Your task to perform on an android device: Set the phone to "Do not disturb". Image 0: 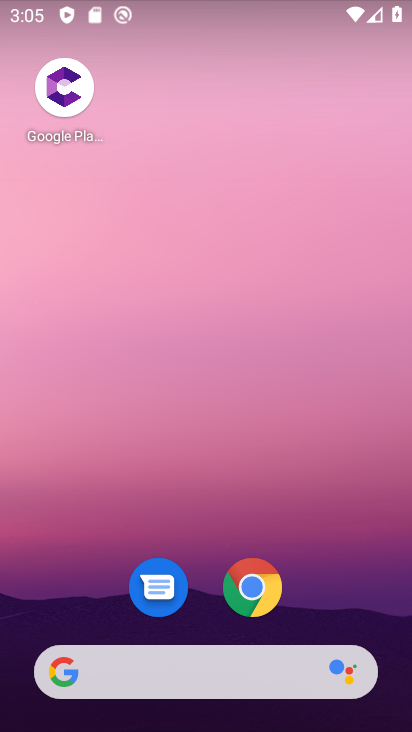
Step 0: drag from (215, 572) to (252, 19)
Your task to perform on an android device: Set the phone to "Do not disturb". Image 1: 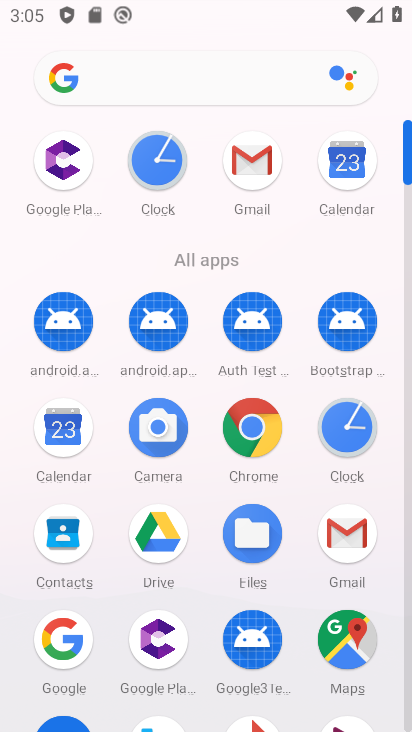
Step 1: drag from (207, 581) to (237, 110)
Your task to perform on an android device: Set the phone to "Do not disturb". Image 2: 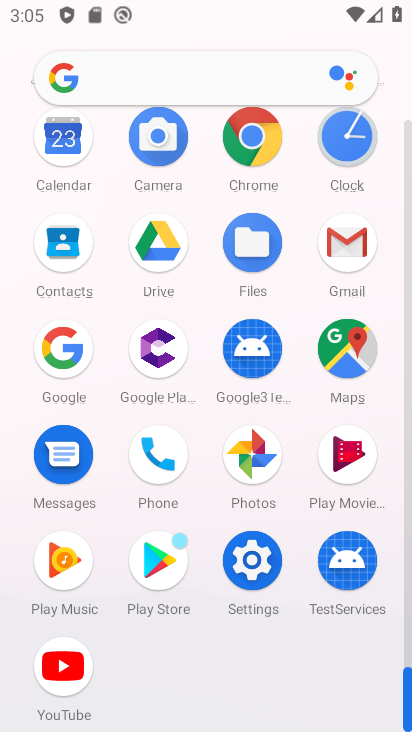
Step 2: click (250, 586)
Your task to perform on an android device: Set the phone to "Do not disturb". Image 3: 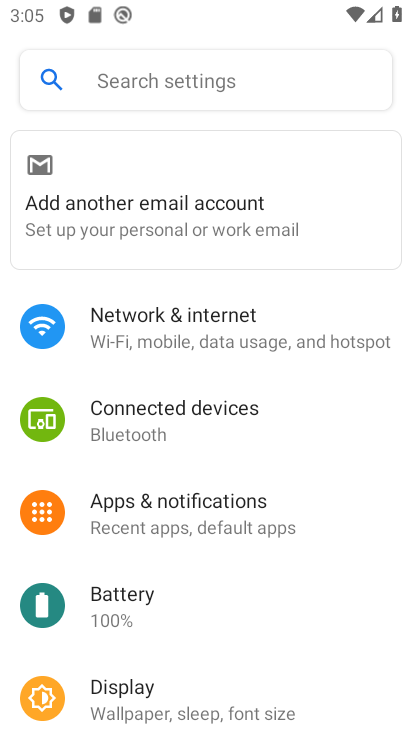
Step 3: drag from (174, 650) to (242, 272)
Your task to perform on an android device: Set the phone to "Do not disturb". Image 4: 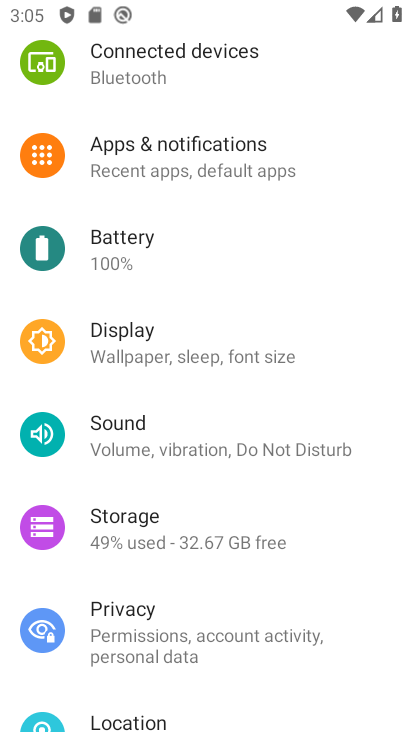
Step 4: click (181, 451)
Your task to perform on an android device: Set the phone to "Do not disturb". Image 5: 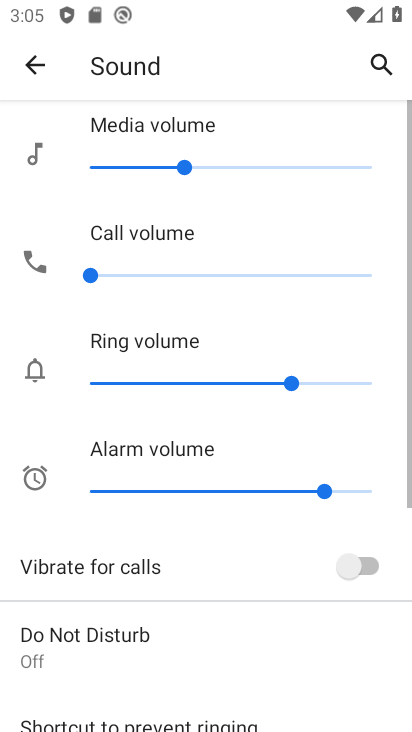
Step 5: drag from (174, 605) to (229, 244)
Your task to perform on an android device: Set the phone to "Do not disturb". Image 6: 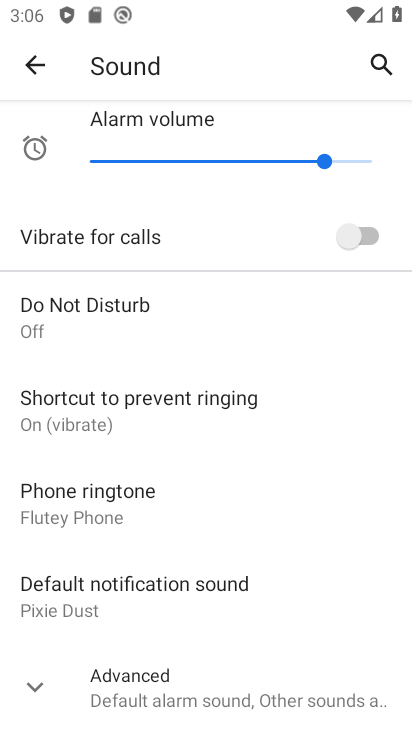
Step 6: click (100, 326)
Your task to perform on an android device: Set the phone to "Do not disturb". Image 7: 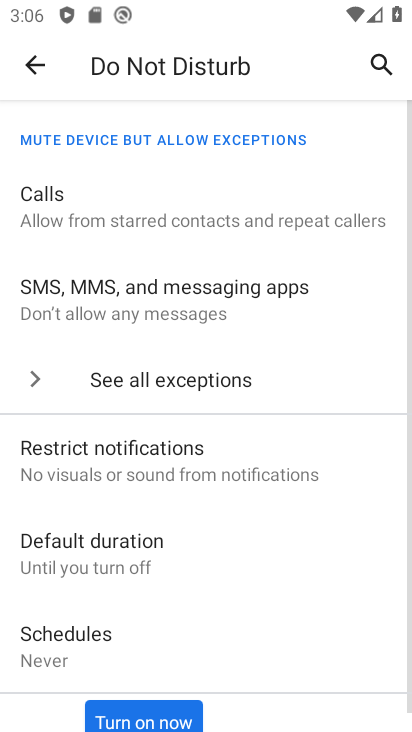
Step 7: drag from (214, 605) to (275, 261)
Your task to perform on an android device: Set the phone to "Do not disturb". Image 8: 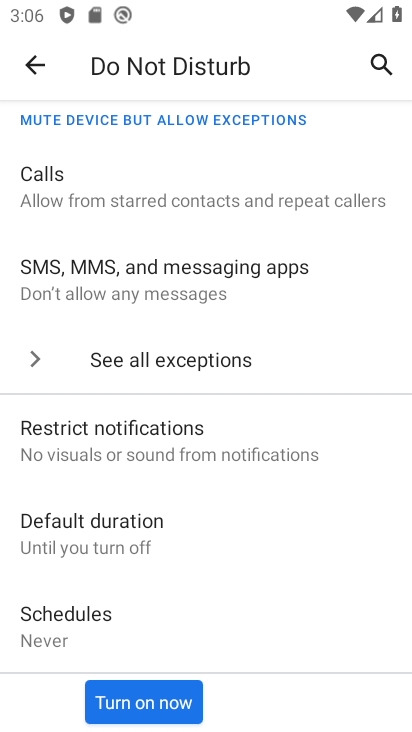
Step 8: click (159, 715)
Your task to perform on an android device: Set the phone to "Do not disturb". Image 9: 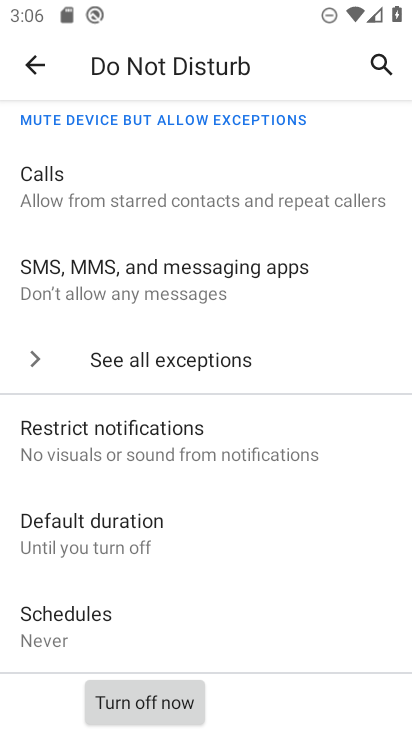
Step 9: task complete